Your task to perform on an android device: allow notifications from all sites in the chrome app Image 0: 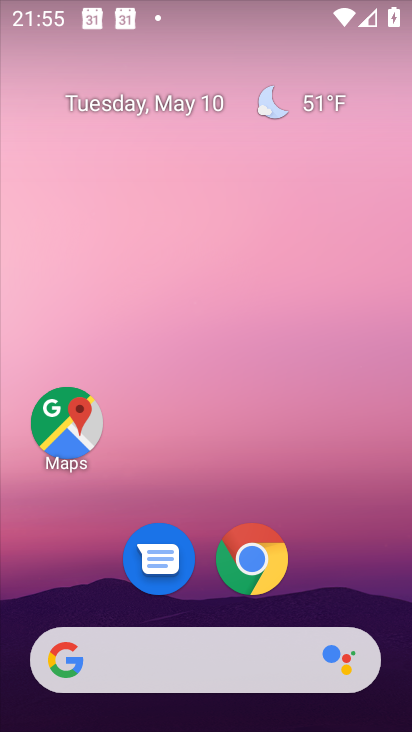
Step 0: click (248, 559)
Your task to perform on an android device: allow notifications from all sites in the chrome app Image 1: 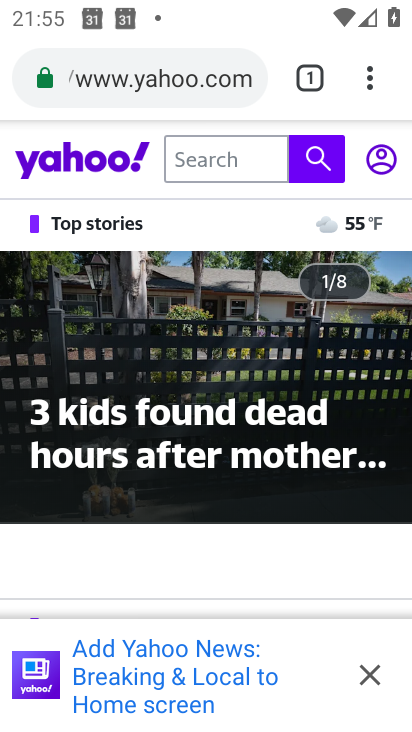
Step 1: click (371, 80)
Your task to perform on an android device: allow notifications from all sites in the chrome app Image 2: 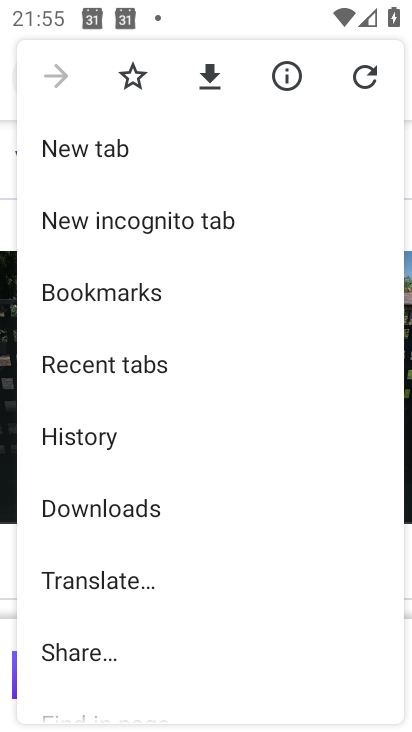
Step 2: drag from (167, 499) to (211, 366)
Your task to perform on an android device: allow notifications from all sites in the chrome app Image 3: 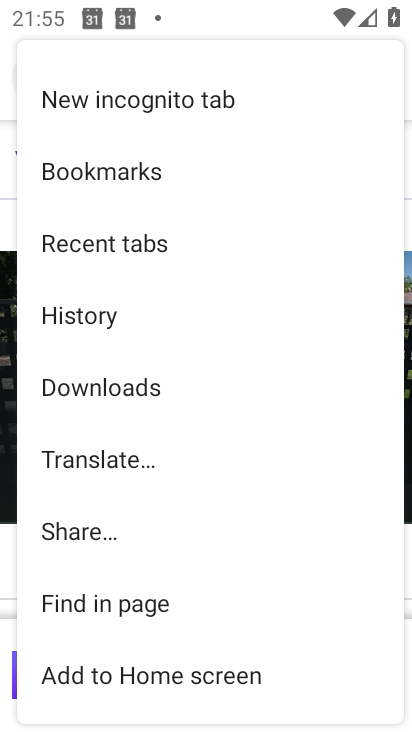
Step 3: drag from (188, 525) to (231, 400)
Your task to perform on an android device: allow notifications from all sites in the chrome app Image 4: 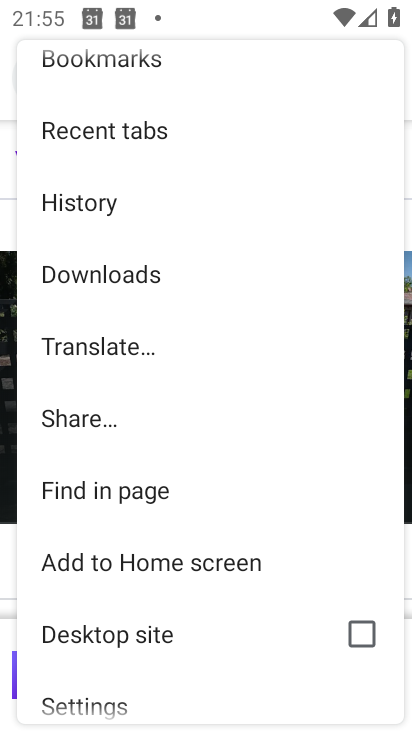
Step 4: drag from (181, 610) to (247, 460)
Your task to perform on an android device: allow notifications from all sites in the chrome app Image 5: 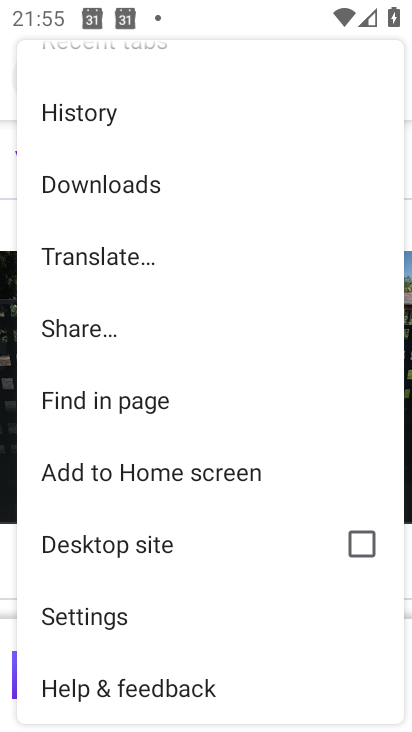
Step 5: click (109, 616)
Your task to perform on an android device: allow notifications from all sites in the chrome app Image 6: 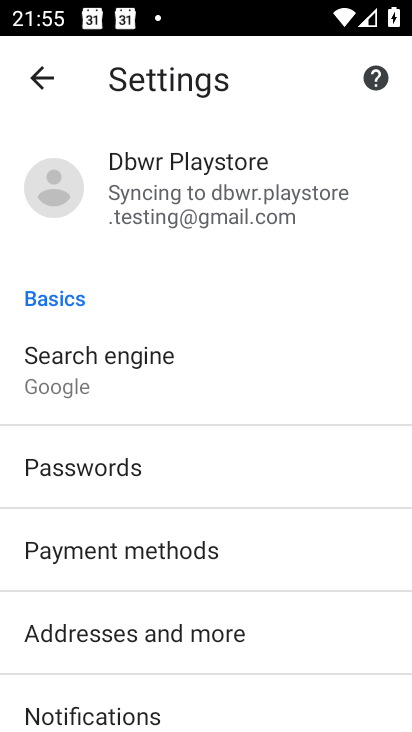
Step 6: drag from (216, 587) to (293, 454)
Your task to perform on an android device: allow notifications from all sites in the chrome app Image 7: 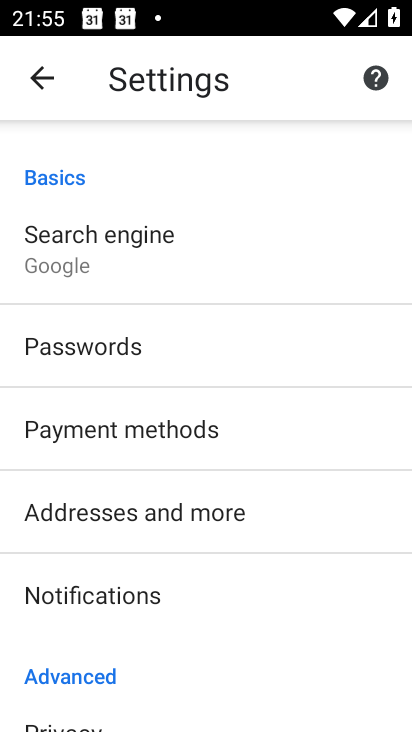
Step 7: drag from (210, 580) to (291, 450)
Your task to perform on an android device: allow notifications from all sites in the chrome app Image 8: 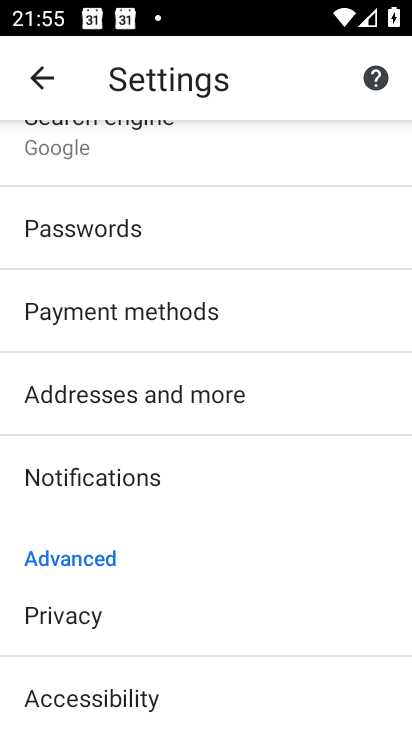
Step 8: drag from (211, 584) to (276, 446)
Your task to perform on an android device: allow notifications from all sites in the chrome app Image 9: 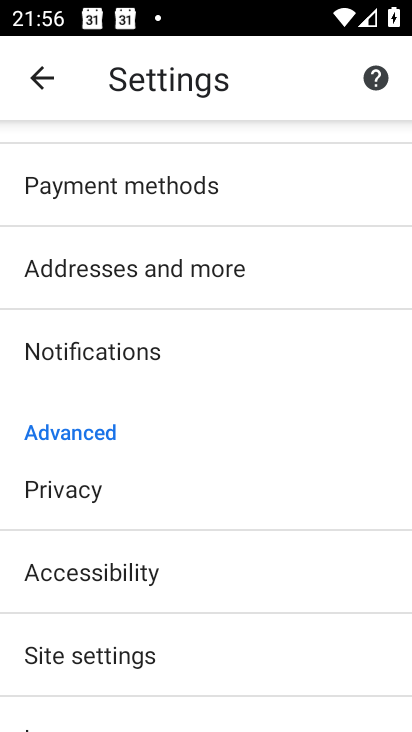
Step 9: drag from (191, 605) to (250, 506)
Your task to perform on an android device: allow notifications from all sites in the chrome app Image 10: 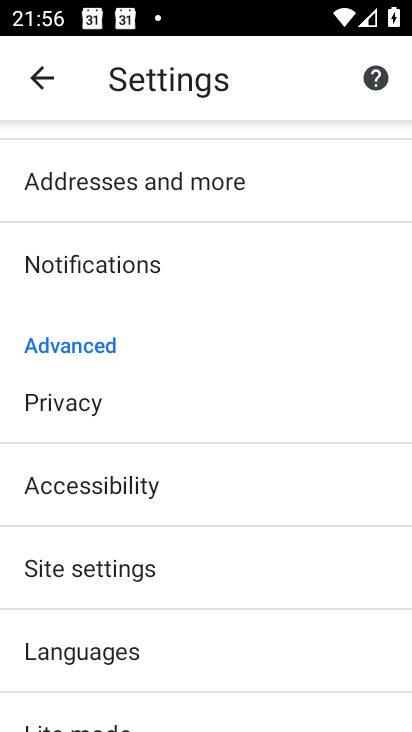
Step 10: click (145, 571)
Your task to perform on an android device: allow notifications from all sites in the chrome app Image 11: 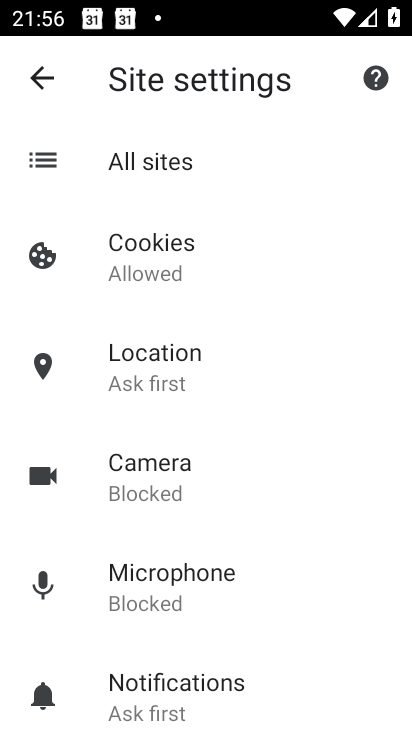
Step 11: drag from (275, 616) to (278, 468)
Your task to perform on an android device: allow notifications from all sites in the chrome app Image 12: 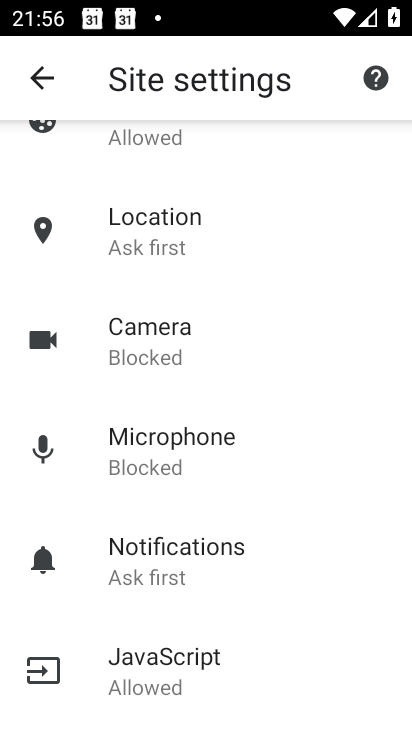
Step 12: drag from (188, 587) to (232, 479)
Your task to perform on an android device: allow notifications from all sites in the chrome app Image 13: 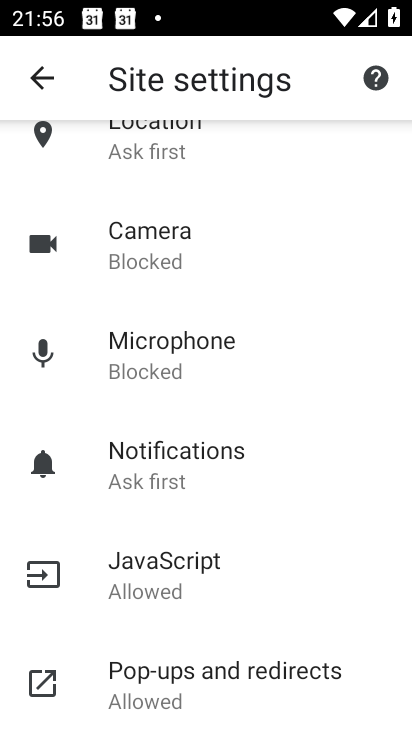
Step 13: drag from (209, 594) to (261, 496)
Your task to perform on an android device: allow notifications from all sites in the chrome app Image 14: 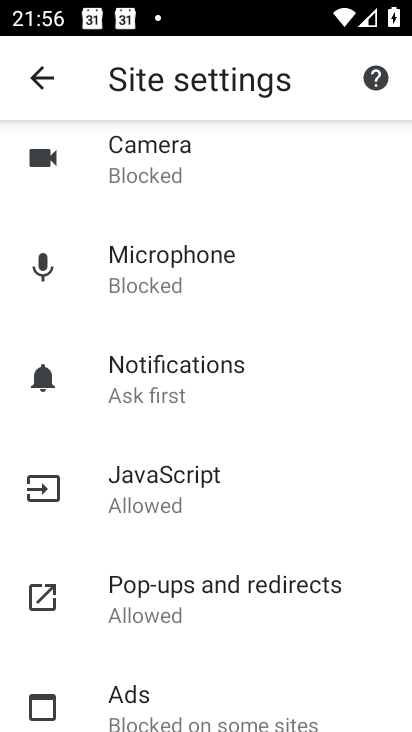
Step 14: click (247, 367)
Your task to perform on an android device: allow notifications from all sites in the chrome app Image 15: 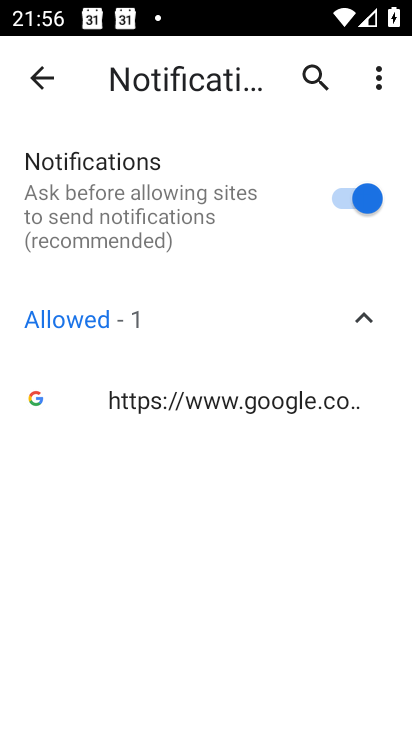
Step 15: click (368, 319)
Your task to perform on an android device: allow notifications from all sites in the chrome app Image 16: 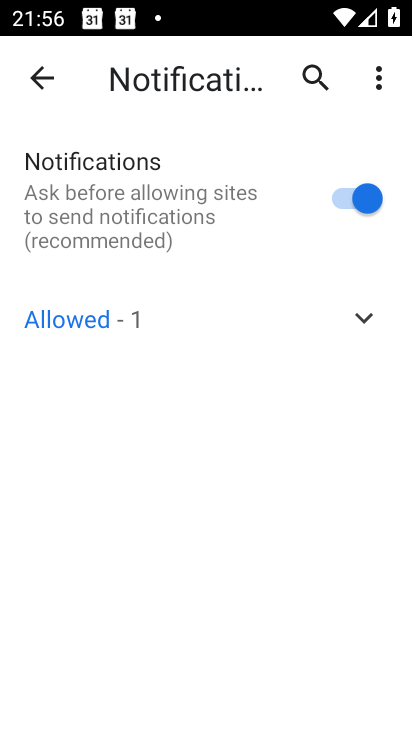
Step 16: click (368, 319)
Your task to perform on an android device: allow notifications from all sites in the chrome app Image 17: 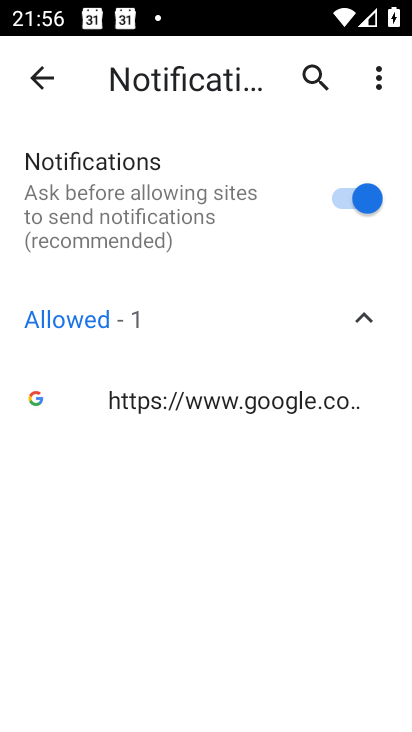
Step 17: click (254, 402)
Your task to perform on an android device: allow notifications from all sites in the chrome app Image 18: 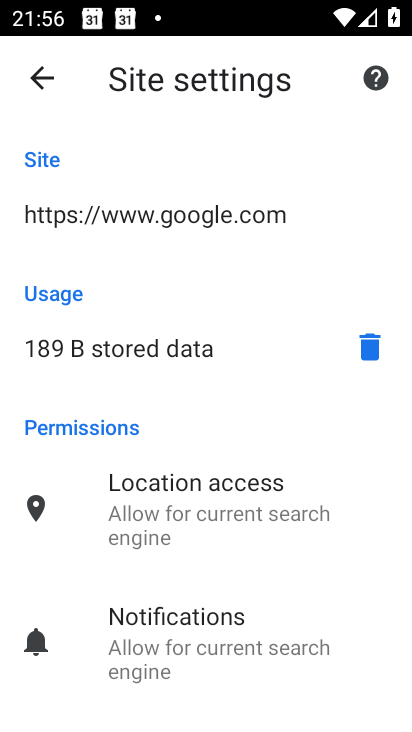
Step 18: task complete